Your task to perform on an android device: Go to location settings Image 0: 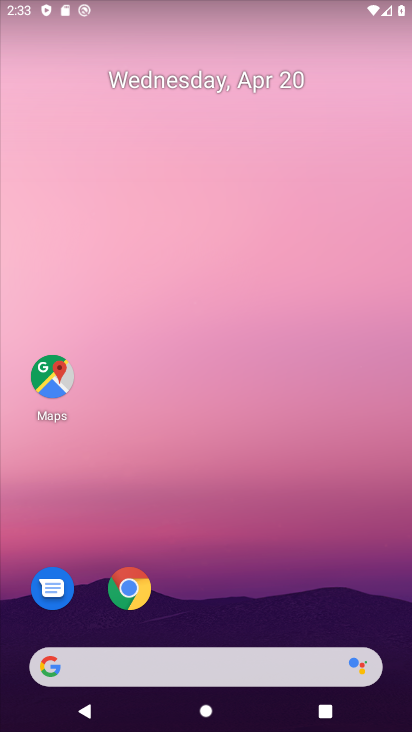
Step 0: drag from (264, 646) to (191, 37)
Your task to perform on an android device: Go to location settings Image 1: 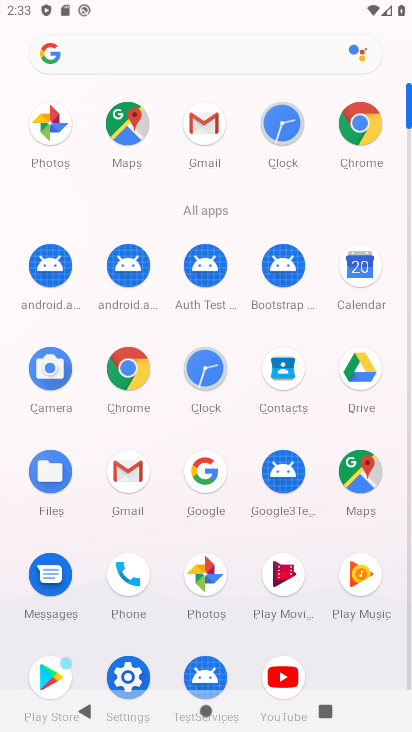
Step 1: drag from (143, 643) to (126, 223)
Your task to perform on an android device: Go to location settings Image 2: 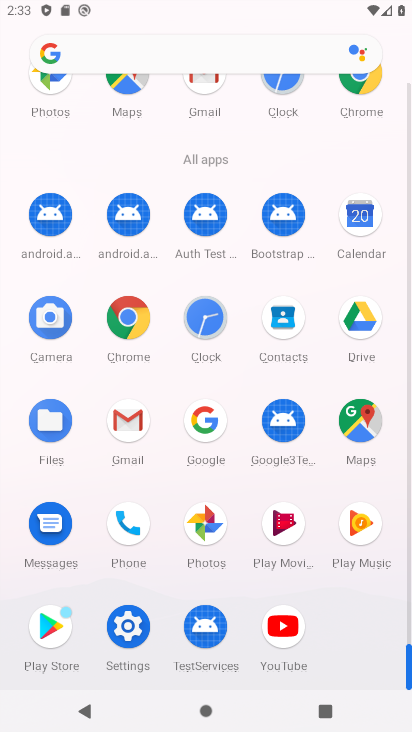
Step 2: click (129, 616)
Your task to perform on an android device: Go to location settings Image 3: 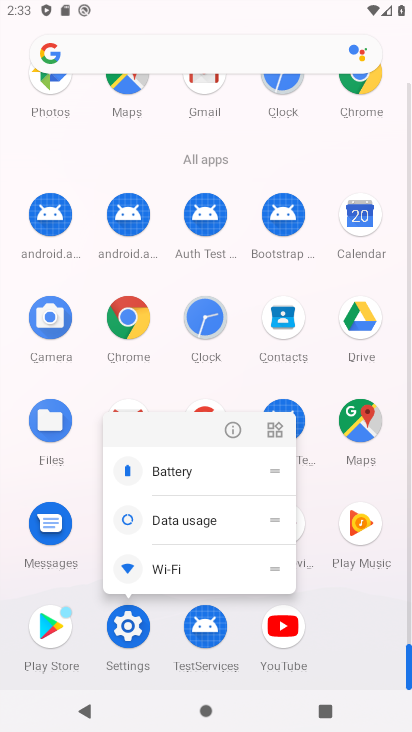
Step 3: click (129, 616)
Your task to perform on an android device: Go to location settings Image 4: 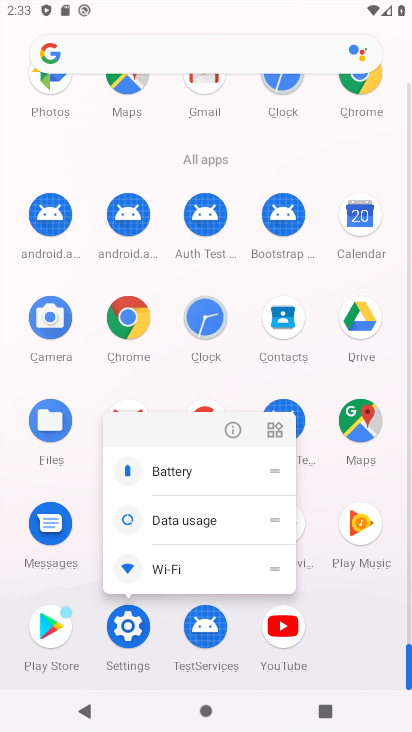
Step 4: click (136, 630)
Your task to perform on an android device: Go to location settings Image 5: 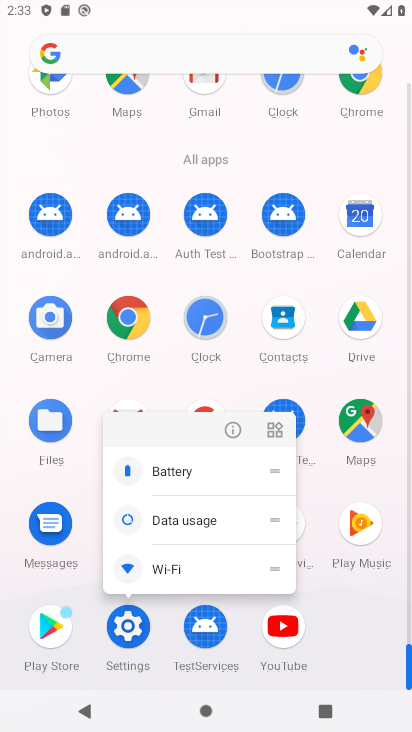
Step 5: click (136, 630)
Your task to perform on an android device: Go to location settings Image 6: 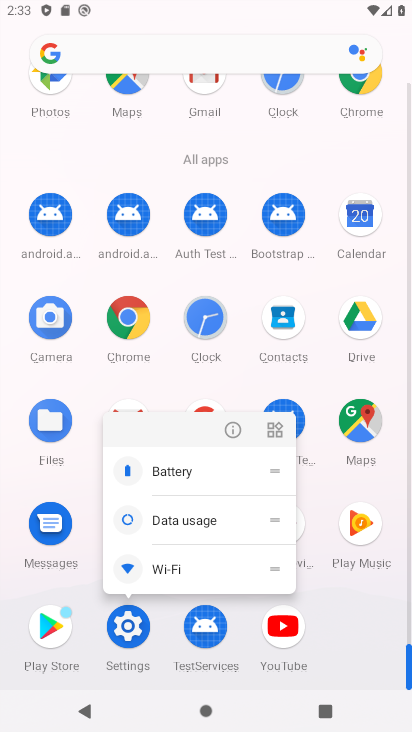
Step 6: click (136, 630)
Your task to perform on an android device: Go to location settings Image 7: 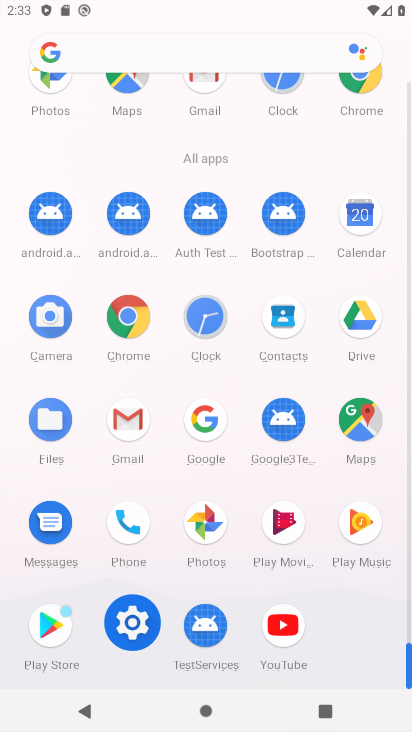
Step 7: click (131, 634)
Your task to perform on an android device: Go to location settings Image 8: 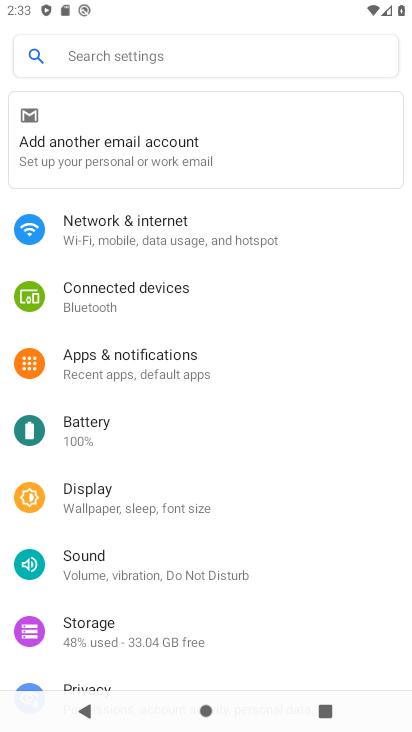
Step 8: drag from (138, 640) to (138, 206)
Your task to perform on an android device: Go to location settings Image 9: 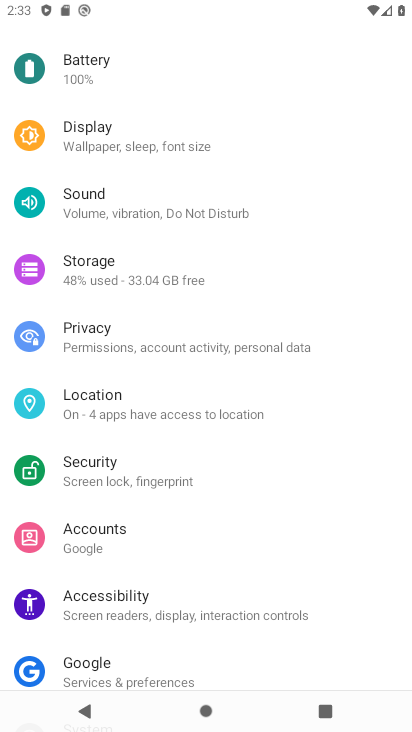
Step 9: click (137, 412)
Your task to perform on an android device: Go to location settings Image 10: 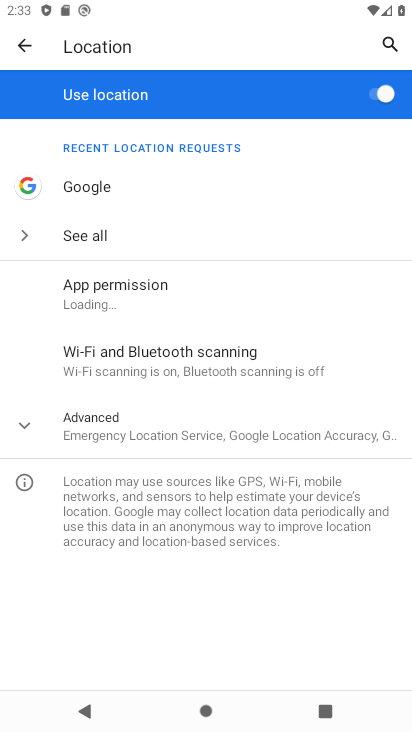
Step 10: click (132, 431)
Your task to perform on an android device: Go to location settings Image 11: 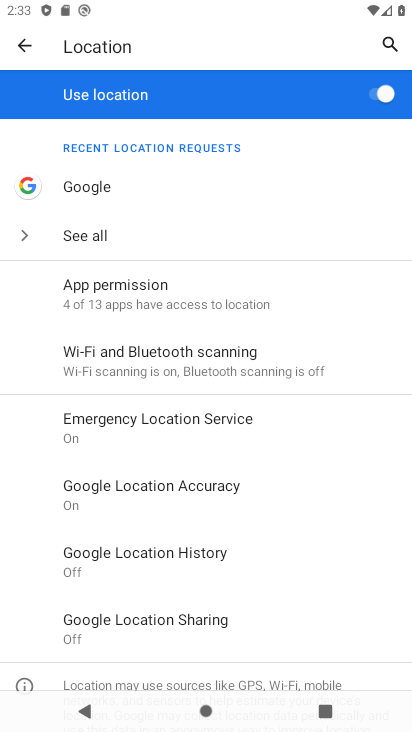
Step 11: task complete